Your task to perform on an android device: Play the last video I watched on Youtube Image 0: 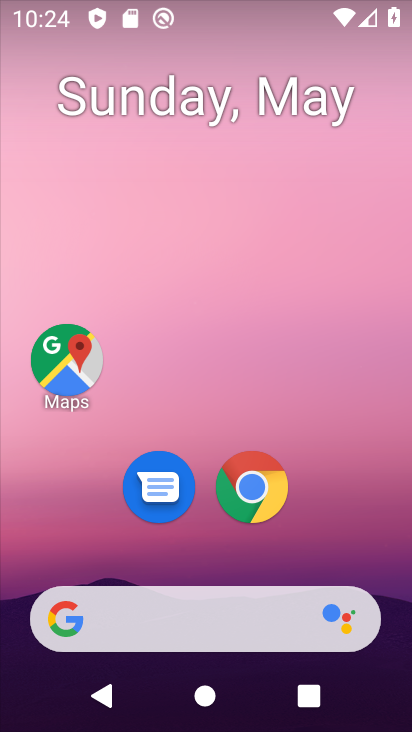
Step 0: drag from (164, 575) to (280, 159)
Your task to perform on an android device: Play the last video I watched on Youtube Image 1: 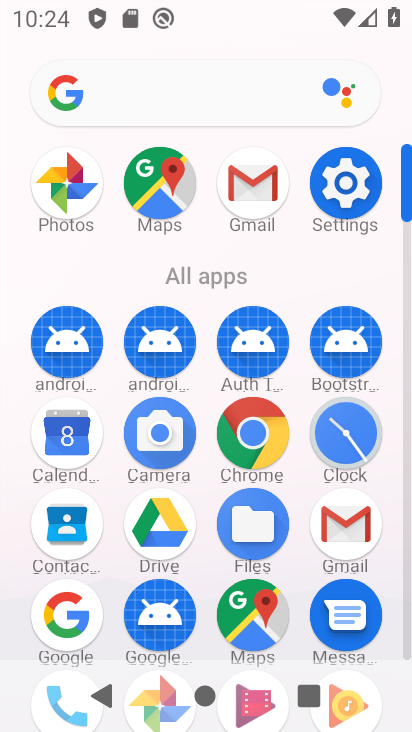
Step 1: drag from (182, 652) to (250, 491)
Your task to perform on an android device: Play the last video I watched on Youtube Image 2: 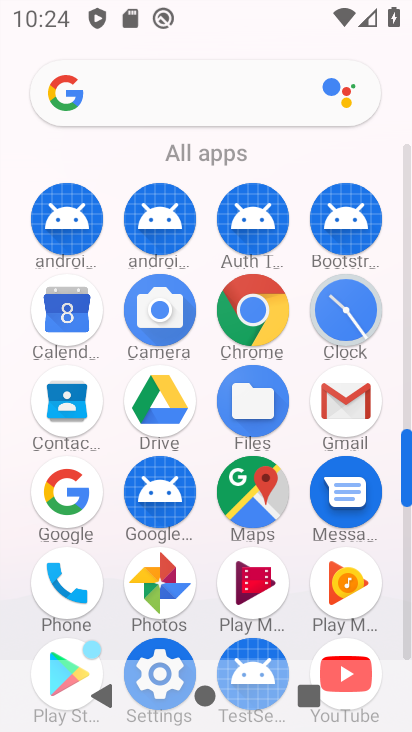
Step 2: click (372, 667)
Your task to perform on an android device: Play the last video I watched on Youtube Image 3: 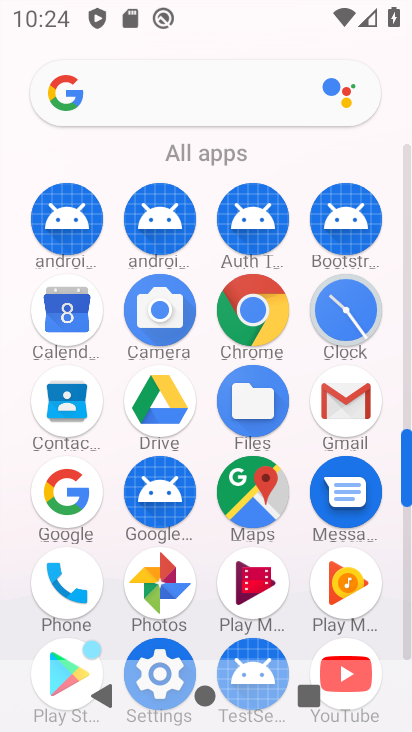
Step 3: click (355, 667)
Your task to perform on an android device: Play the last video I watched on Youtube Image 4: 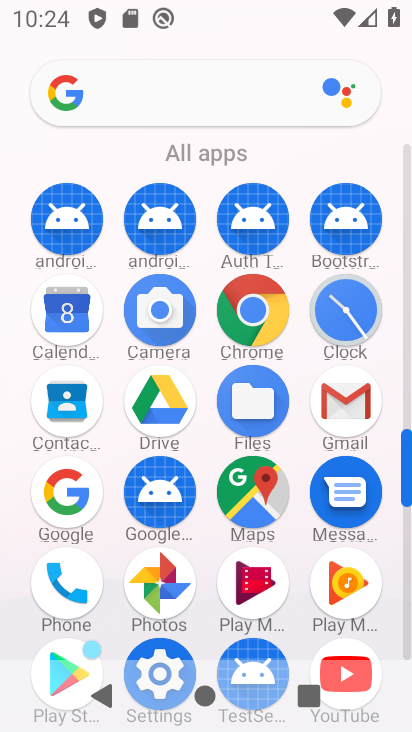
Step 4: click (352, 660)
Your task to perform on an android device: Play the last video I watched on Youtube Image 5: 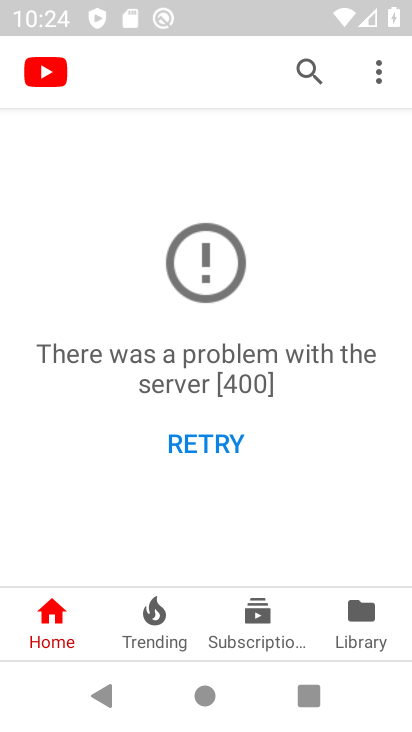
Step 5: click (379, 620)
Your task to perform on an android device: Play the last video I watched on Youtube Image 6: 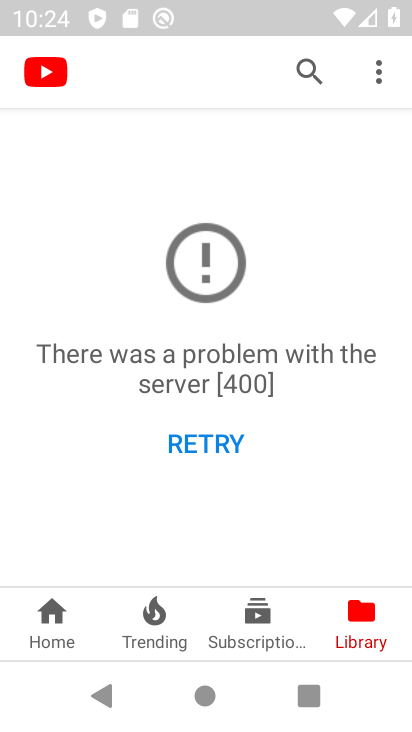
Step 6: task complete